Your task to perform on an android device: Go to Android settings Image 0: 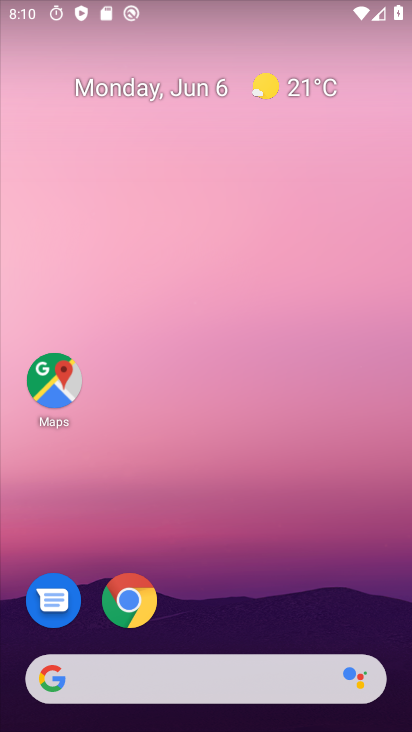
Step 0: drag from (226, 581) to (203, 31)
Your task to perform on an android device: Go to Android settings Image 1: 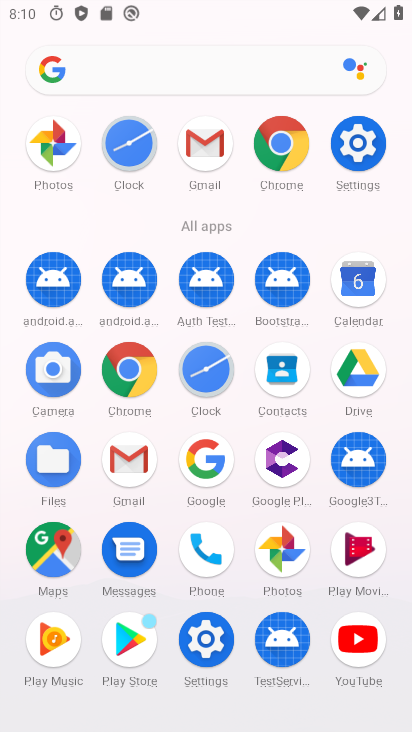
Step 1: drag from (17, 552) to (10, 293)
Your task to perform on an android device: Go to Android settings Image 2: 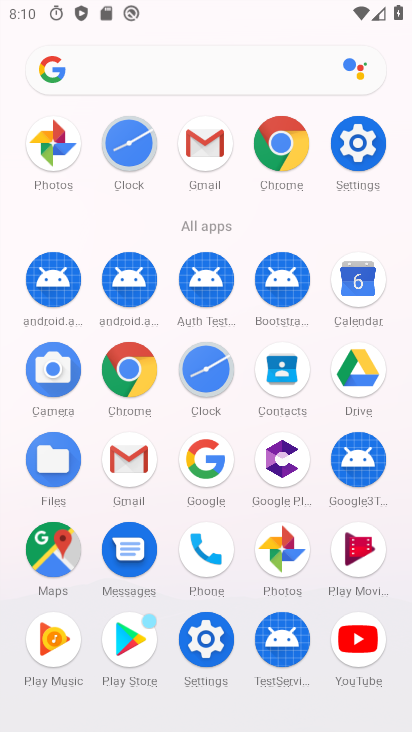
Step 2: click (201, 641)
Your task to perform on an android device: Go to Android settings Image 3: 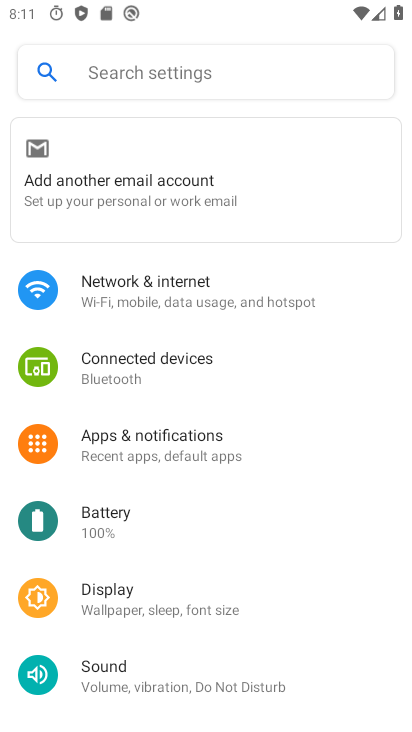
Step 3: task complete